Your task to perform on an android device: Open Google Chrome and click the shortcut for Amazon.com Image 0: 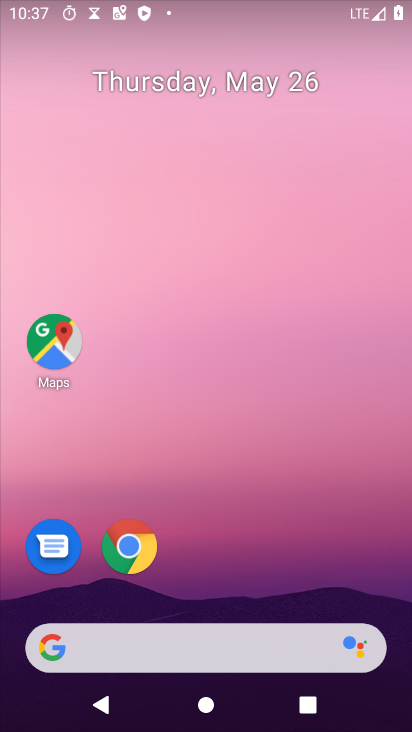
Step 0: drag from (317, 562) to (333, 166)
Your task to perform on an android device: Open Google Chrome and click the shortcut for Amazon.com Image 1: 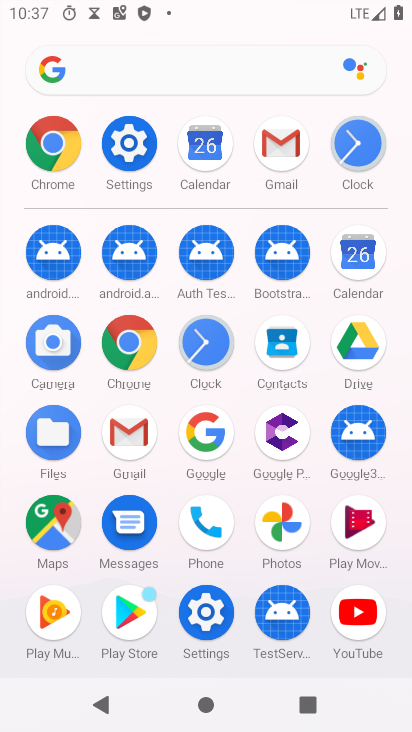
Step 1: click (130, 350)
Your task to perform on an android device: Open Google Chrome and click the shortcut for Amazon.com Image 2: 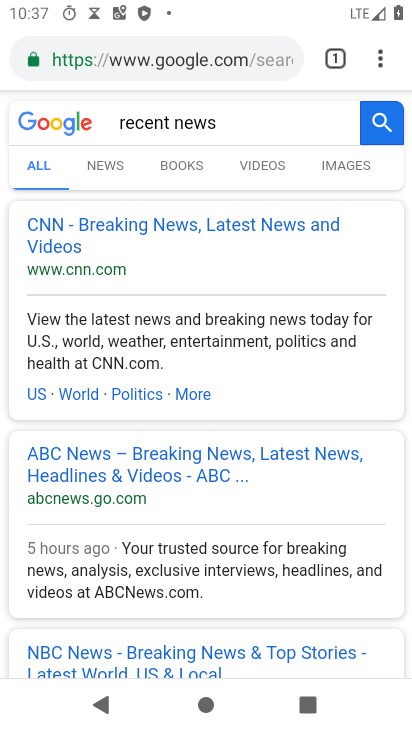
Step 2: click (333, 54)
Your task to perform on an android device: Open Google Chrome and click the shortcut for Amazon.com Image 3: 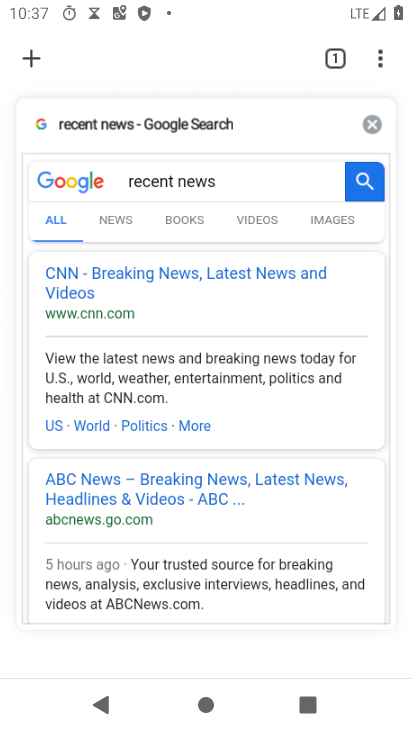
Step 3: click (39, 53)
Your task to perform on an android device: Open Google Chrome and click the shortcut for Amazon.com Image 4: 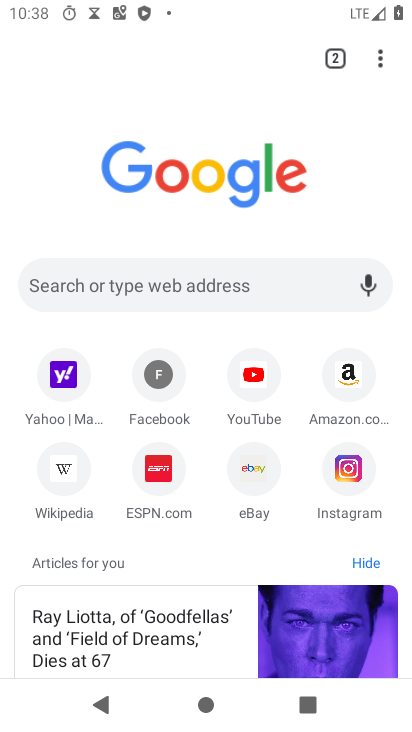
Step 4: click (368, 366)
Your task to perform on an android device: Open Google Chrome and click the shortcut for Amazon.com Image 5: 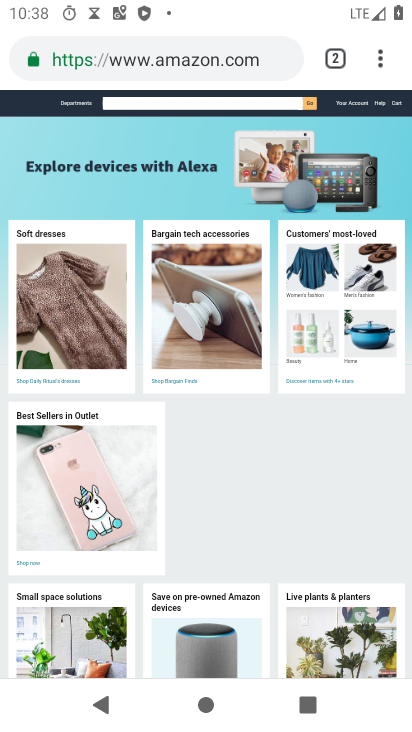
Step 5: task complete